Your task to perform on an android device: toggle notification dots Image 0: 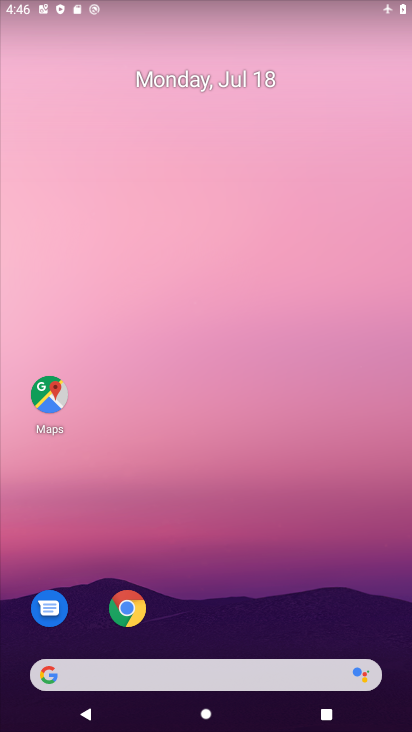
Step 0: drag from (300, 566) to (365, 31)
Your task to perform on an android device: toggle notification dots Image 1: 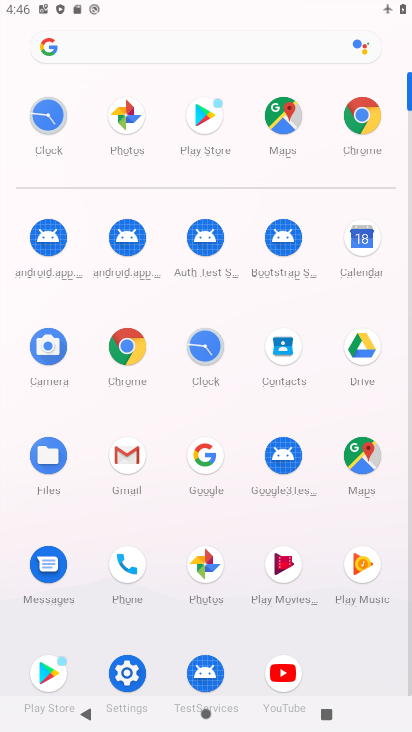
Step 1: click (134, 665)
Your task to perform on an android device: toggle notification dots Image 2: 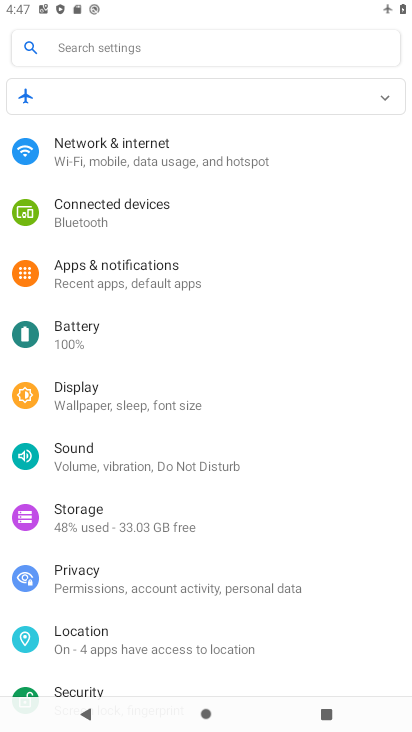
Step 2: click (142, 283)
Your task to perform on an android device: toggle notification dots Image 3: 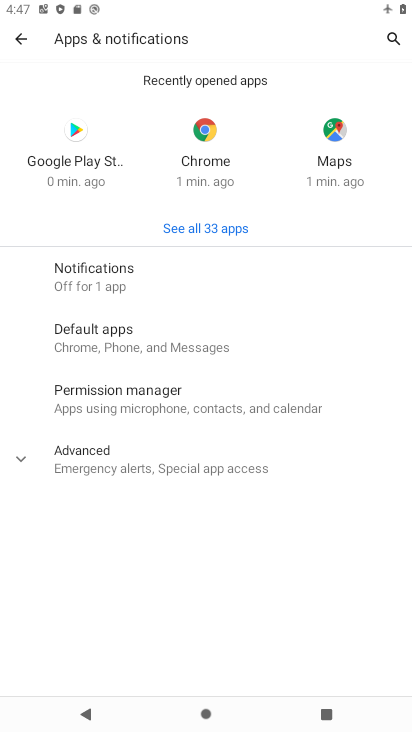
Step 3: click (135, 271)
Your task to perform on an android device: toggle notification dots Image 4: 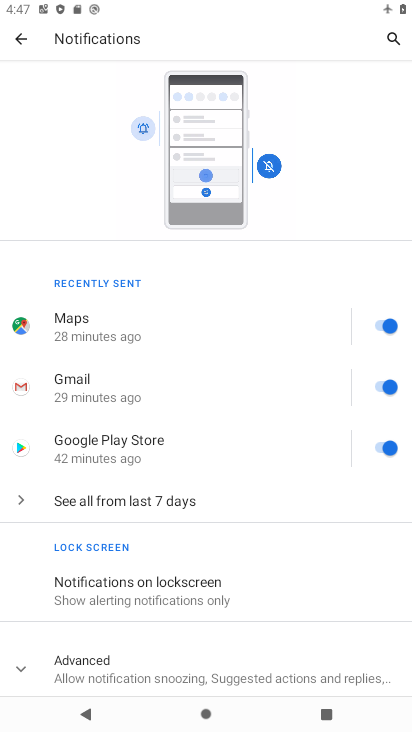
Step 4: drag from (226, 642) to (234, 203)
Your task to perform on an android device: toggle notification dots Image 5: 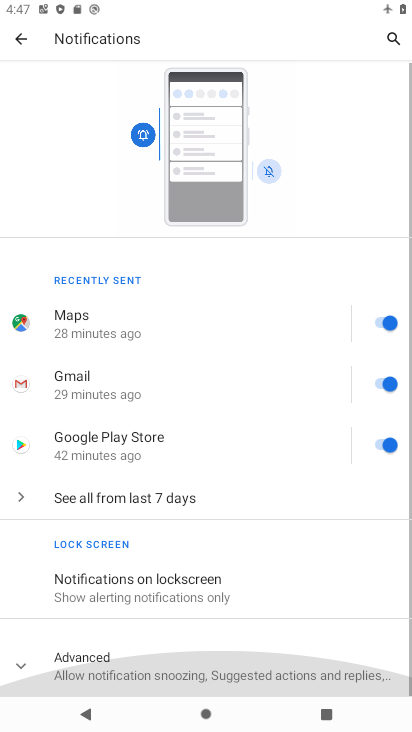
Step 5: click (107, 664)
Your task to perform on an android device: toggle notification dots Image 6: 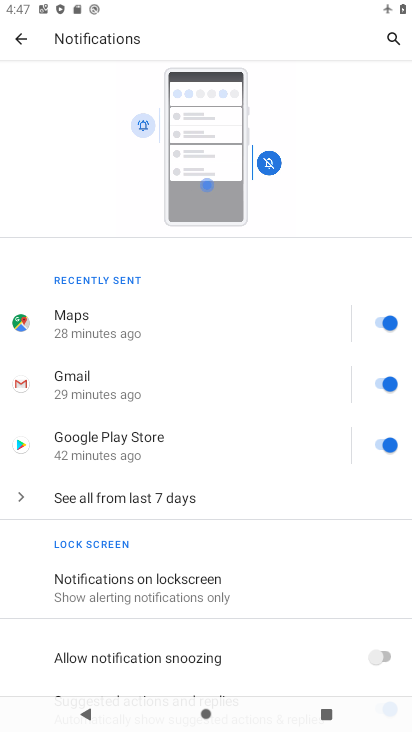
Step 6: drag from (259, 622) to (334, 209)
Your task to perform on an android device: toggle notification dots Image 7: 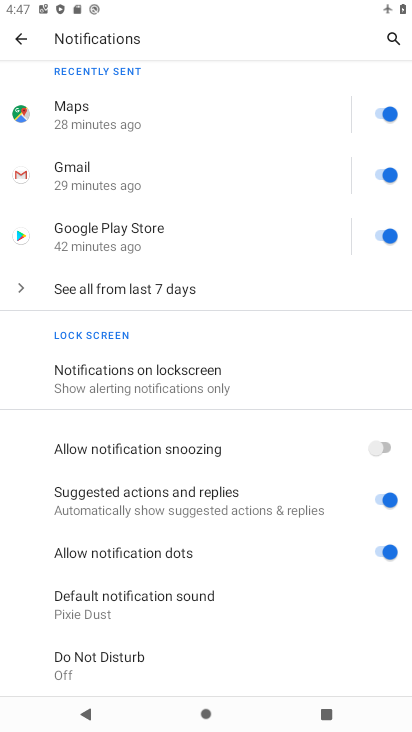
Step 7: click (385, 554)
Your task to perform on an android device: toggle notification dots Image 8: 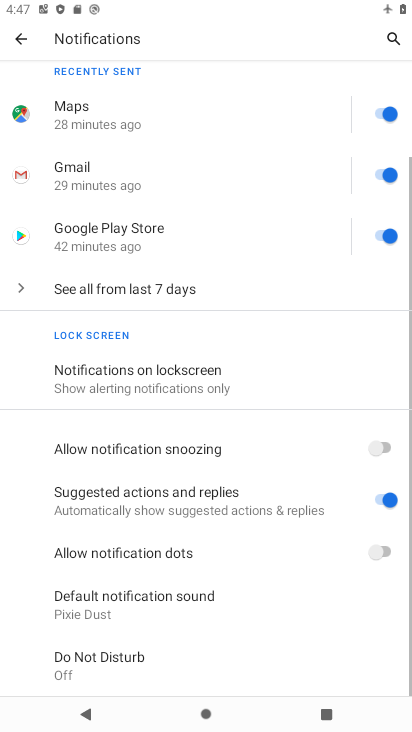
Step 8: task complete